Your task to perform on an android device: Open Chrome and go to settings Image 0: 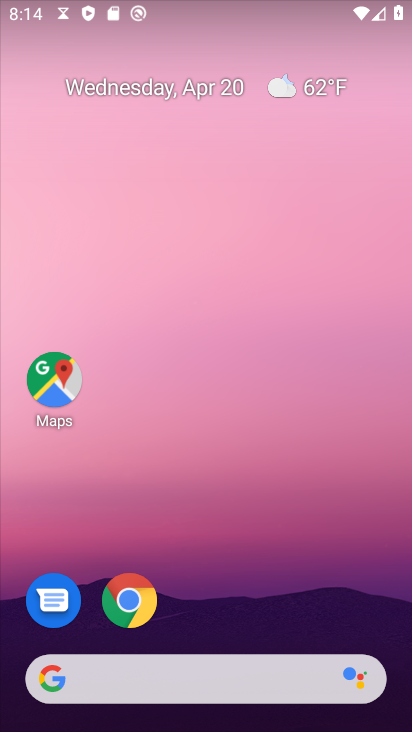
Step 0: click (129, 603)
Your task to perform on an android device: Open Chrome and go to settings Image 1: 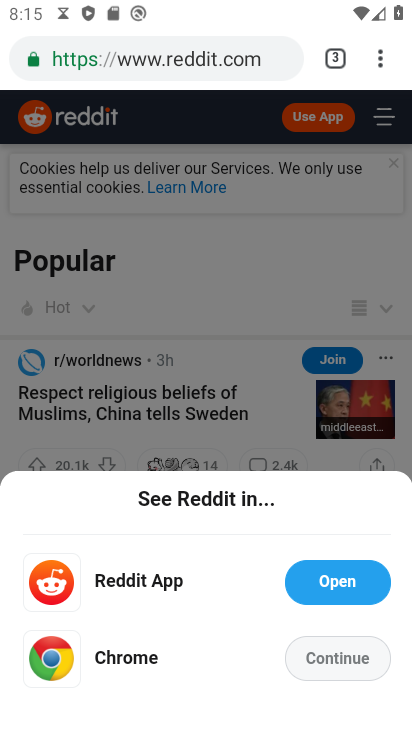
Step 1: click (381, 62)
Your task to perform on an android device: Open Chrome and go to settings Image 2: 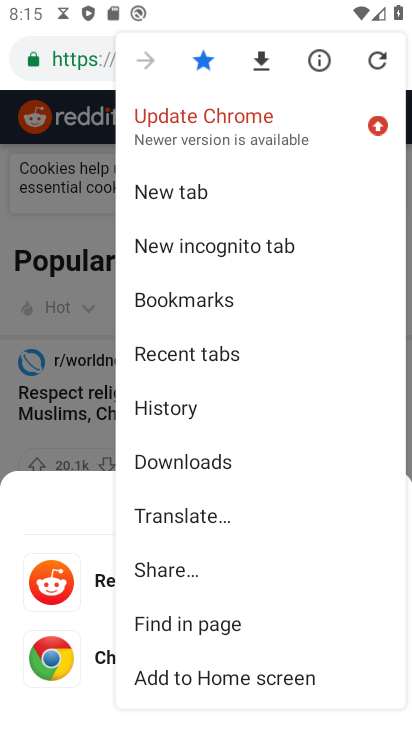
Step 2: drag from (200, 652) to (208, 381)
Your task to perform on an android device: Open Chrome and go to settings Image 3: 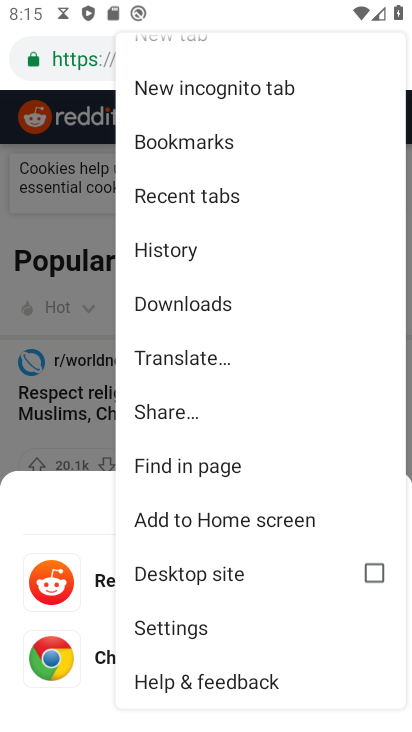
Step 3: click (178, 626)
Your task to perform on an android device: Open Chrome and go to settings Image 4: 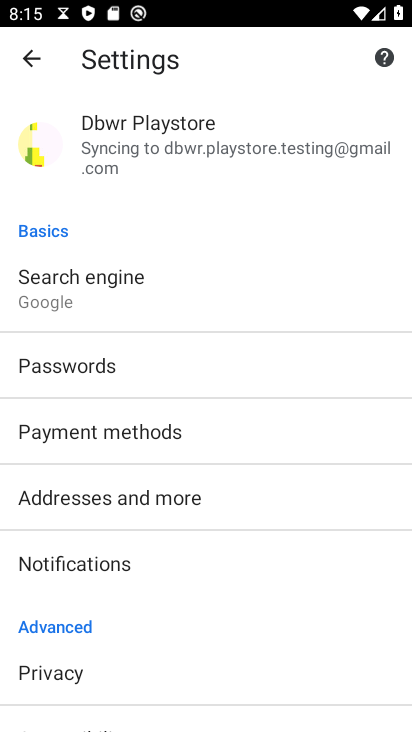
Step 4: task complete